Your task to perform on an android device: What's the weather today? Image 0: 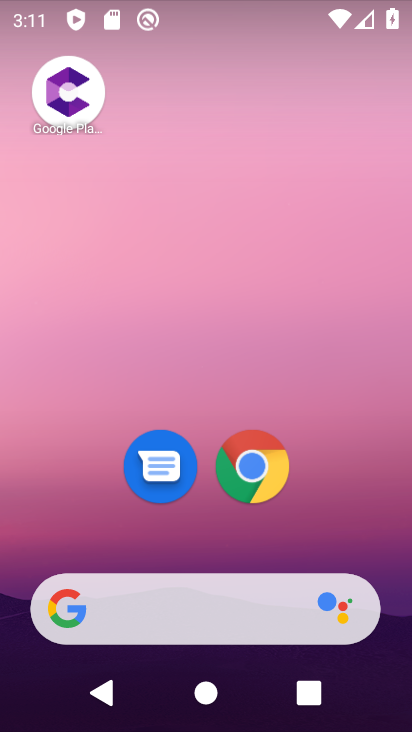
Step 0: drag from (205, 487) to (209, 148)
Your task to perform on an android device: What's the weather today? Image 1: 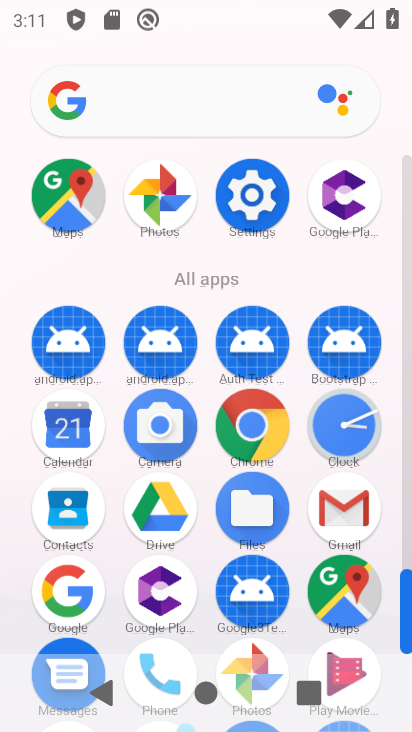
Step 1: click (84, 571)
Your task to perform on an android device: What's the weather today? Image 2: 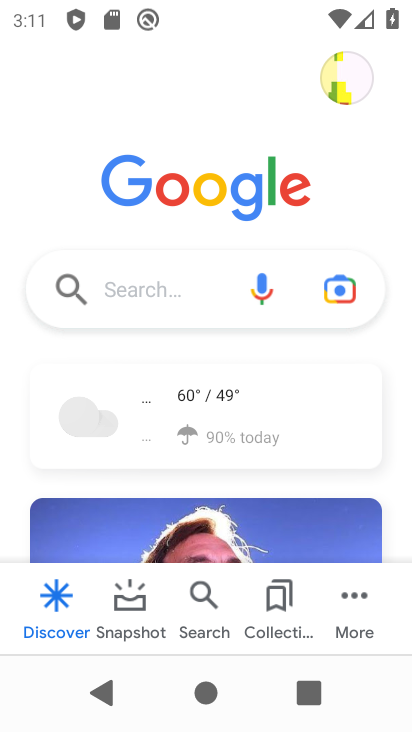
Step 2: click (181, 406)
Your task to perform on an android device: What's the weather today? Image 3: 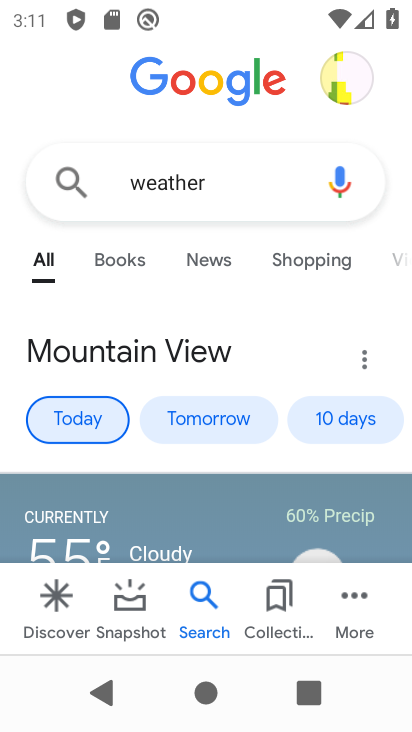
Step 3: task complete